Your task to perform on an android device: turn on javascript in the chrome app Image 0: 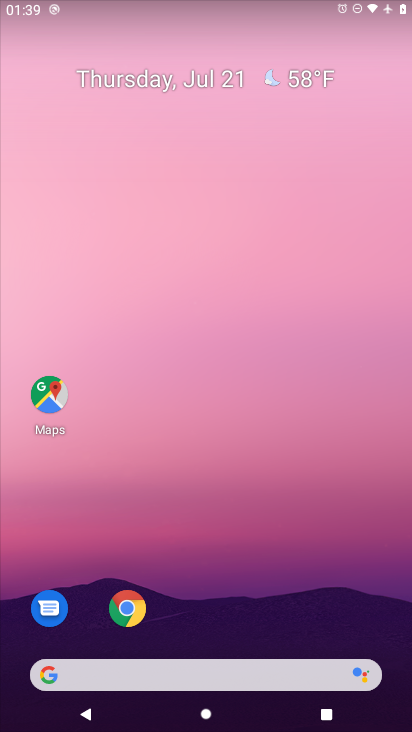
Step 0: press home button
Your task to perform on an android device: turn on javascript in the chrome app Image 1: 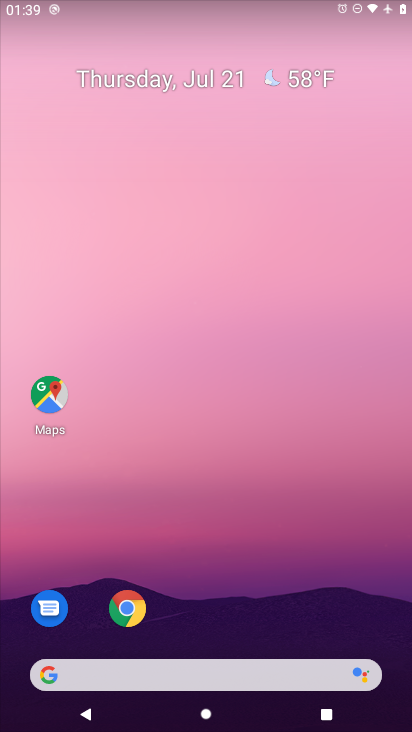
Step 1: drag from (216, 636) to (341, 35)
Your task to perform on an android device: turn on javascript in the chrome app Image 2: 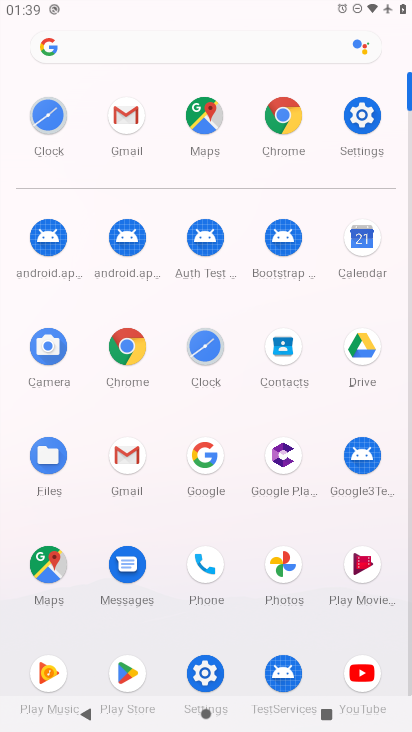
Step 2: click (285, 113)
Your task to perform on an android device: turn on javascript in the chrome app Image 3: 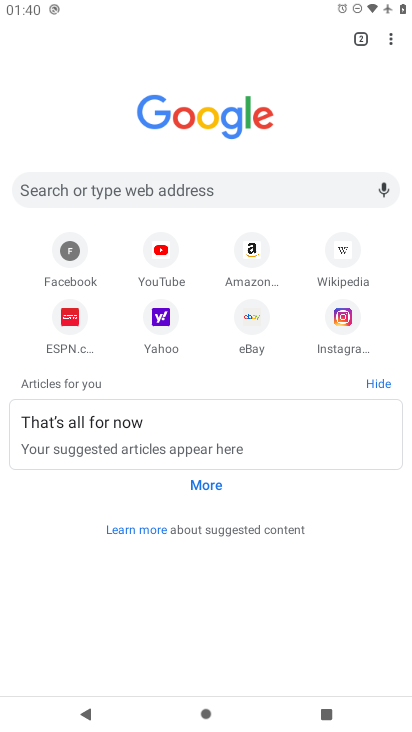
Step 3: drag from (395, 41) to (258, 326)
Your task to perform on an android device: turn on javascript in the chrome app Image 4: 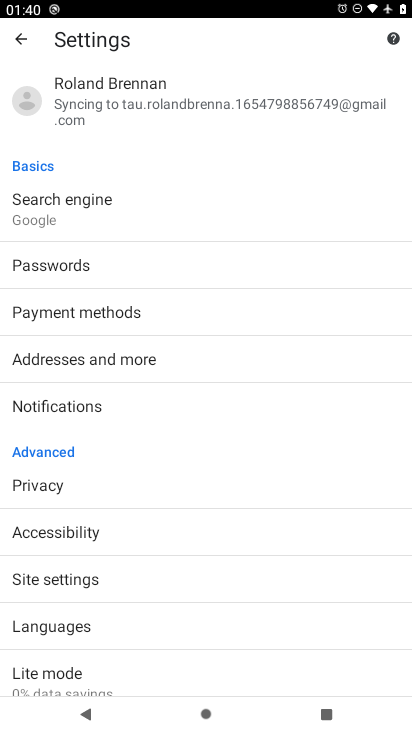
Step 4: click (57, 581)
Your task to perform on an android device: turn on javascript in the chrome app Image 5: 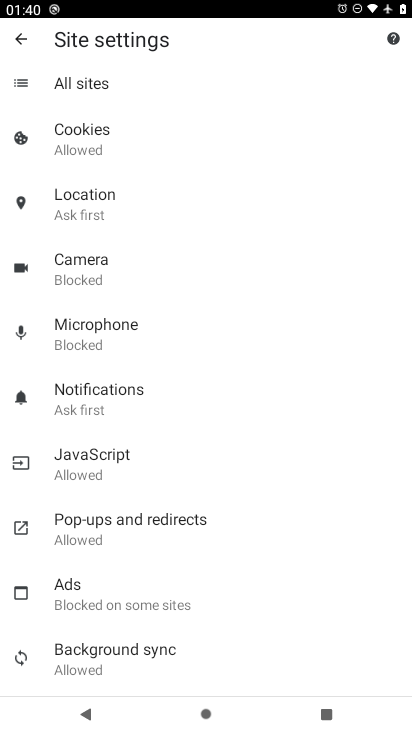
Step 5: click (93, 460)
Your task to perform on an android device: turn on javascript in the chrome app Image 6: 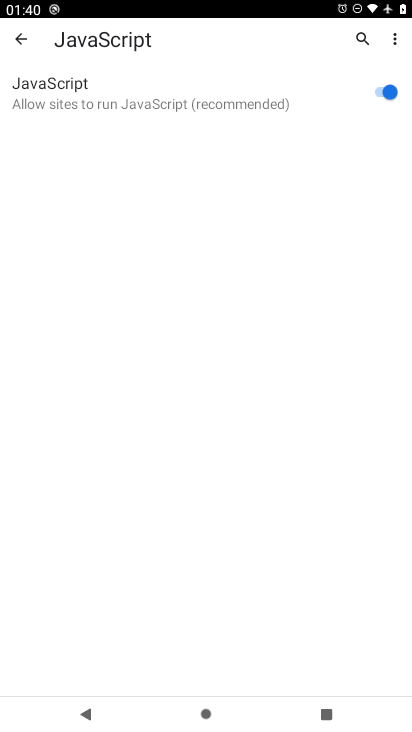
Step 6: task complete